Your task to perform on an android device: Open internet settings Image 0: 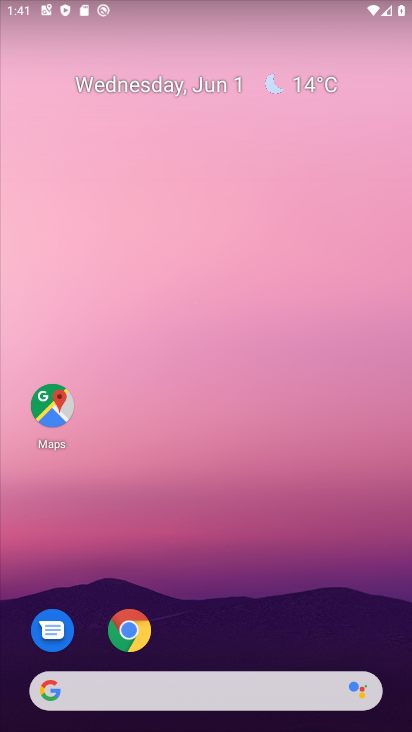
Step 0: press home button
Your task to perform on an android device: Open internet settings Image 1: 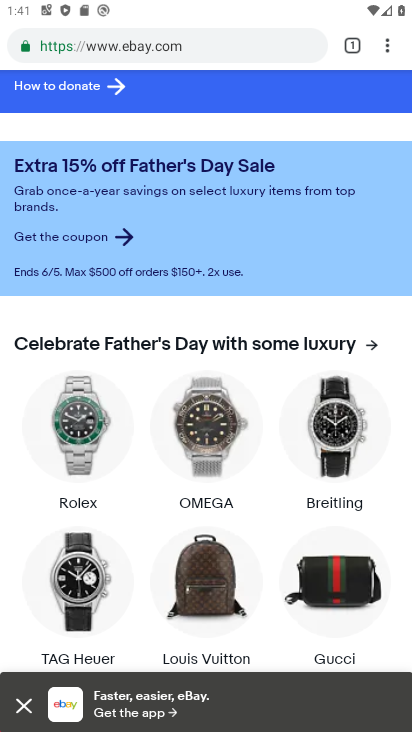
Step 1: press home button
Your task to perform on an android device: Open internet settings Image 2: 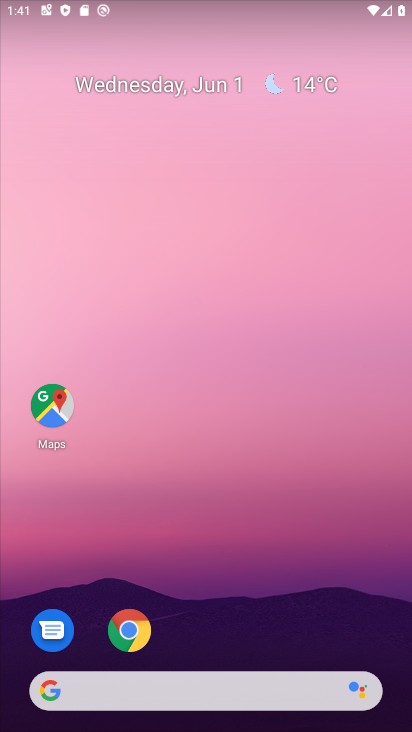
Step 2: drag from (210, 649) to (252, 123)
Your task to perform on an android device: Open internet settings Image 3: 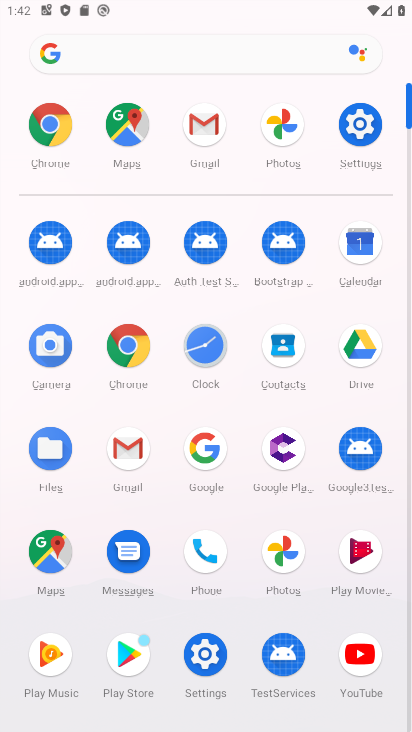
Step 3: click (357, 116)
Your task to perform on an android device: Open internet settings Image 4: 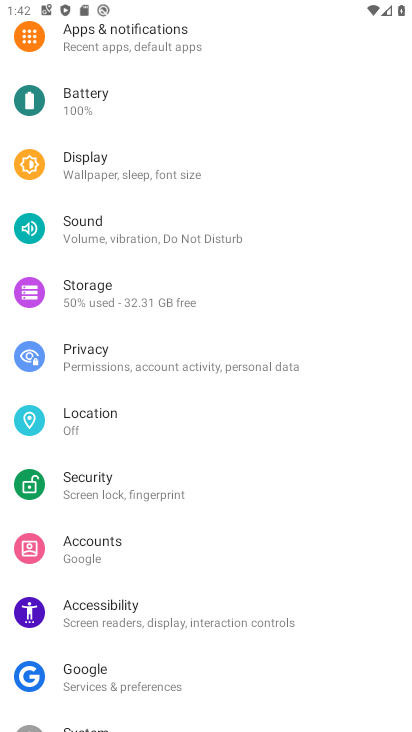
Step 4: drag from (154, 76) to (123, 731)
Your task to perform on an android device: Open internet settings Image 5: 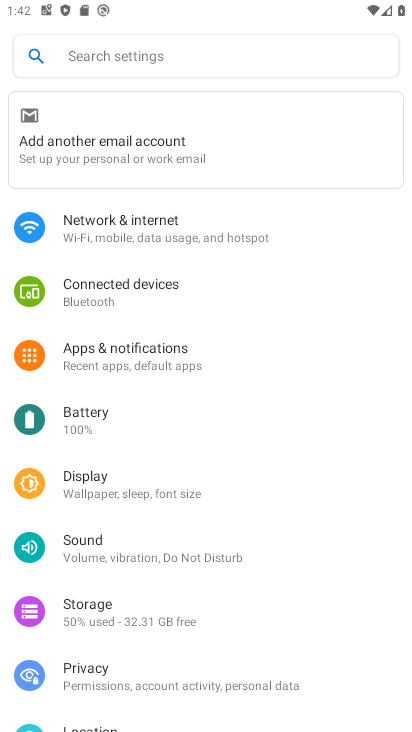
Step 5: click (167, 216)
Your task to perform on an android device: Open internet settings Image 6: 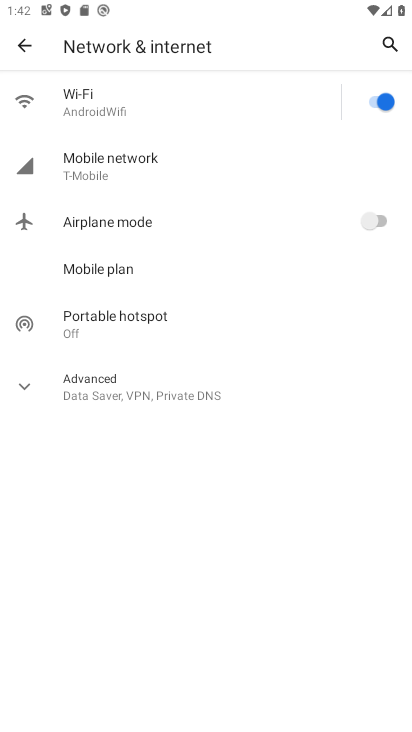
Step 6: click (19, 383)
Your task to perform on an android device: Open internet settings Image 7: 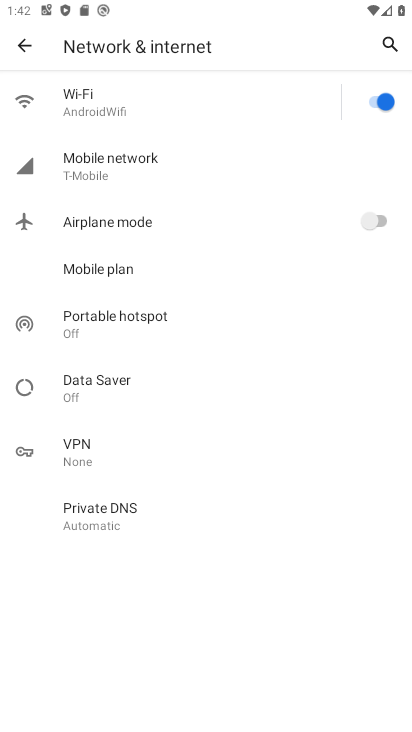
Step 7: task complete